Your task to perform on an android device: Open Maps and search for coffee Image 0: 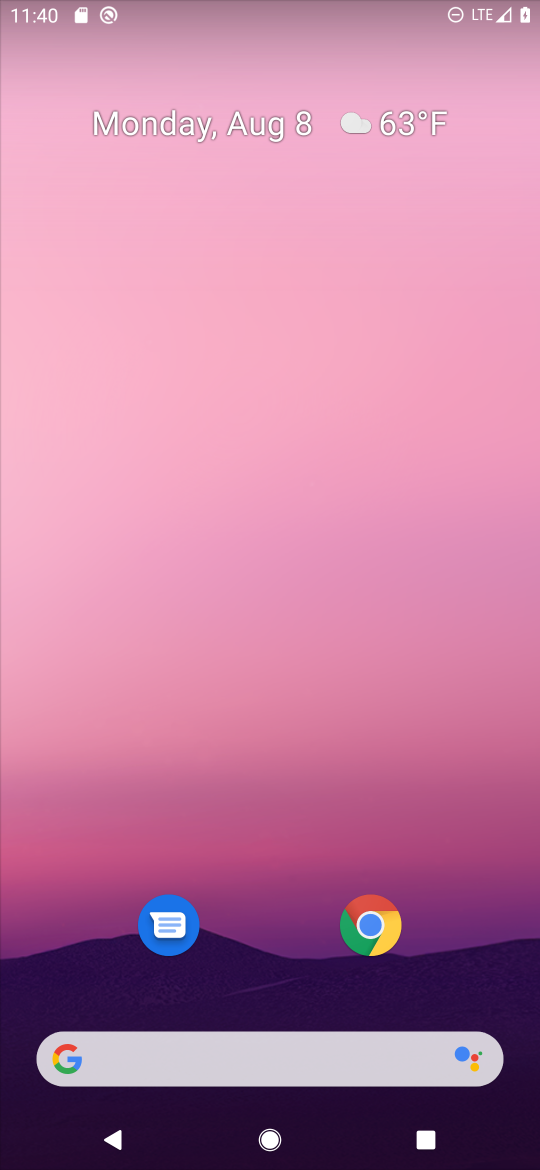
Step 0: drag from (247, 902) to (217, 1)
Your task to perform on an android device: Open Maps and search for coffee Image 1: 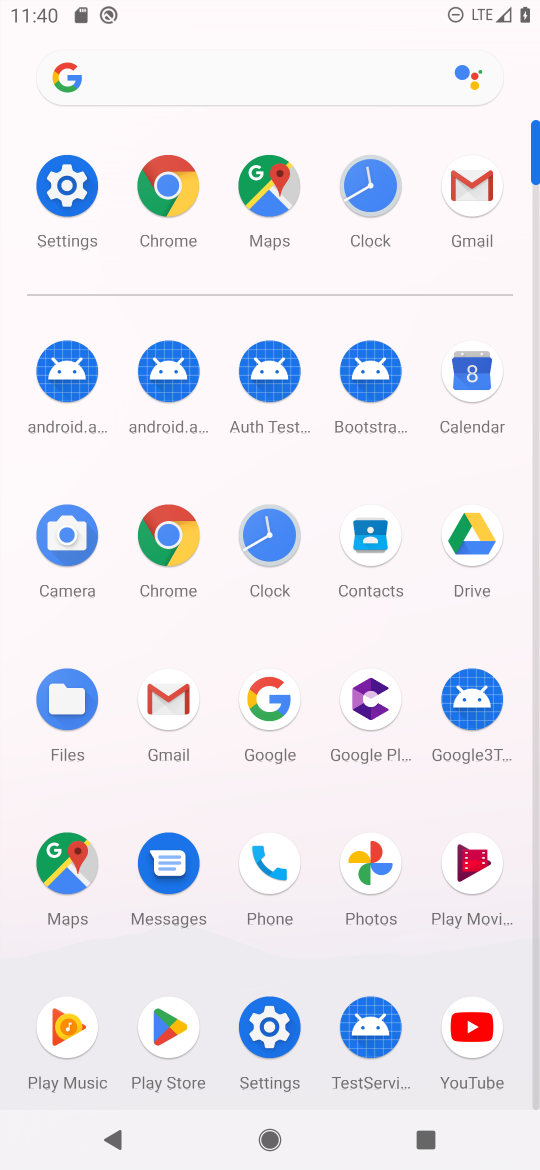
Step 1: click (54, 867)
Your task to perform on an android device: Open Maps and search for coffee Image 2: 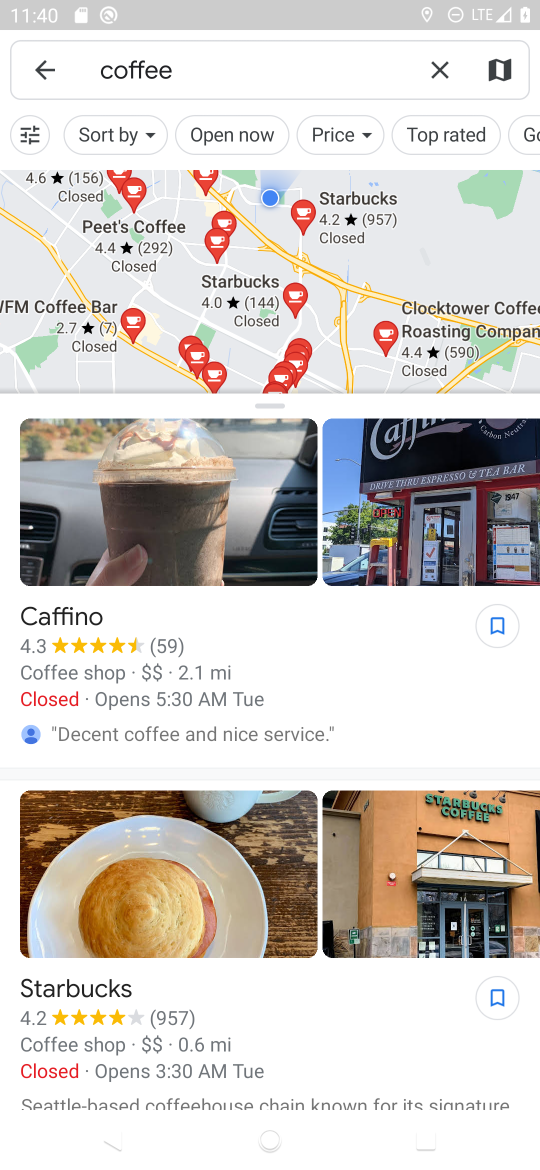
Step 2: task complete